Your task to perform on an android device: Open CNN.com Image 0: 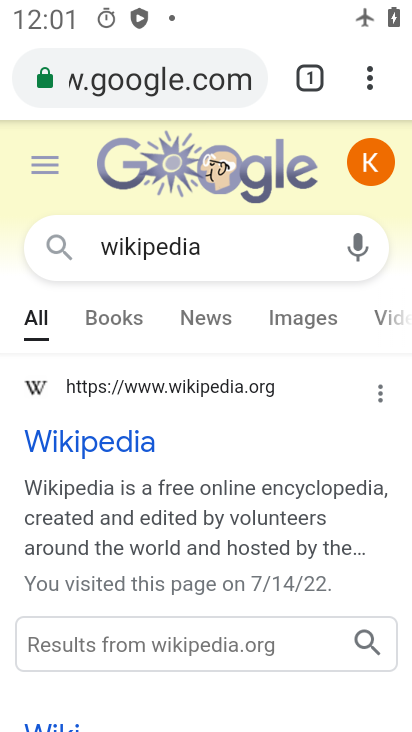
Step 0: press home button
Your task to perform on an android device: Open CNN.com Image 1: 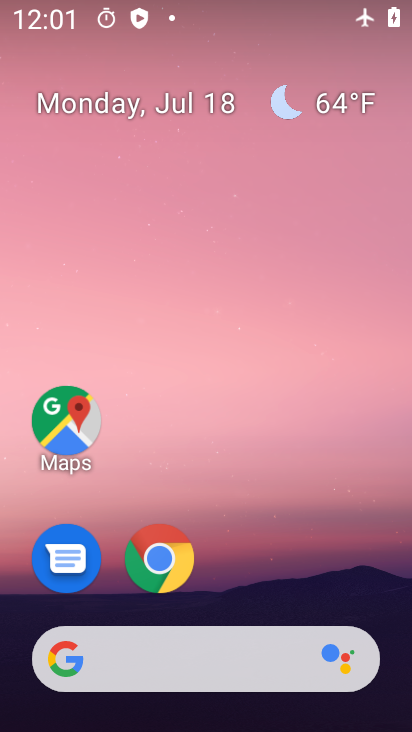
Step 1: drag from (345, 584) to (344, 112)
Your task to perform on an android device: Open CNN.com Image 2: 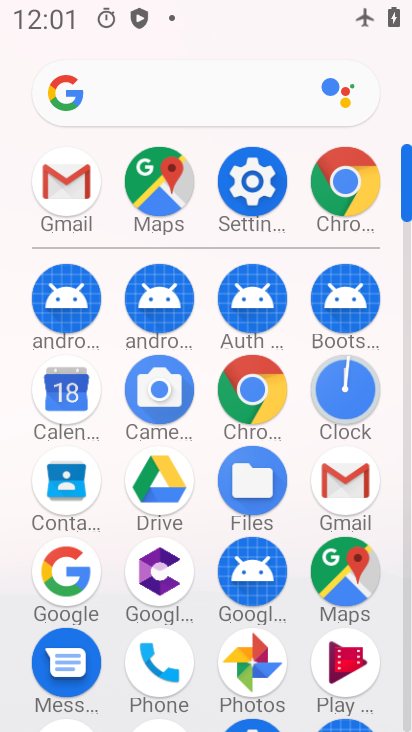
Step 2: click (274, 387)
Your task to perform on an android device: Open CNN.com Image 3: 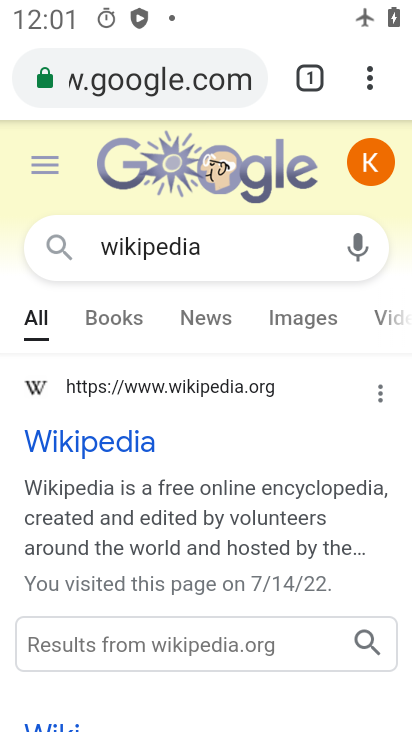
Step 3: click (217, 84)
Your task to perform on an android device: Open CNN.com Image 4: 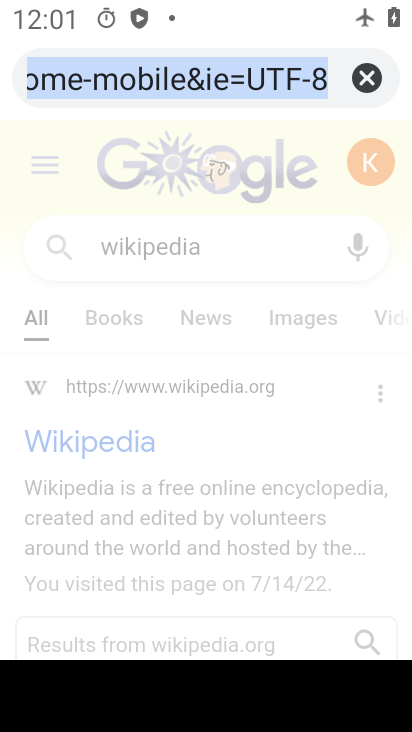
Step 4: type "cnn.com"
Your task to perform on an android device: Open CNN.com Image 5: 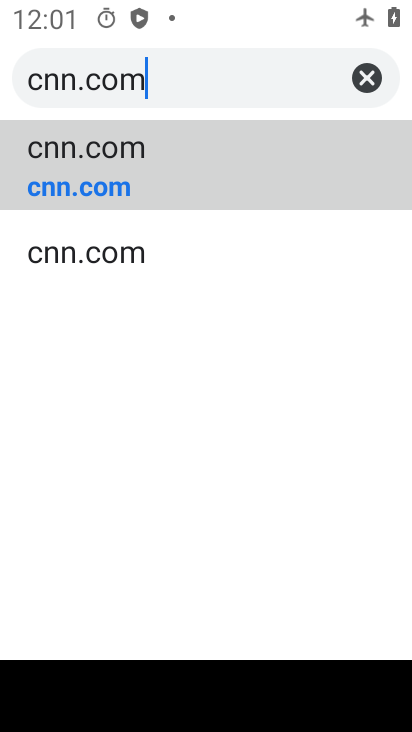
Step 5: click (175, 185)
Your task to perform on an android device: Open CNN.com Image 6: 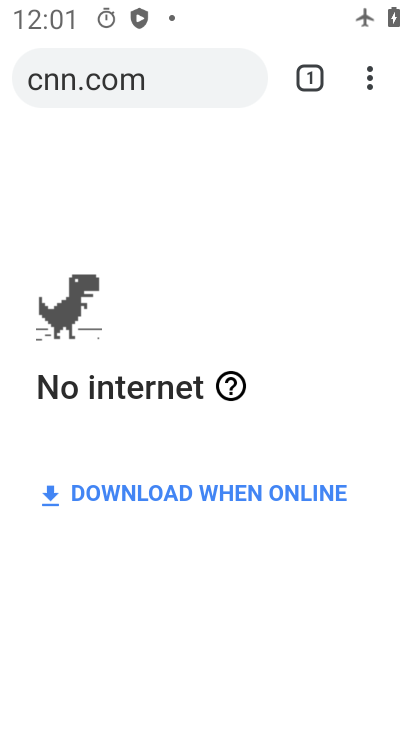
Step 6: task complete